Your task to perform on an android device: Check the news Image 0: 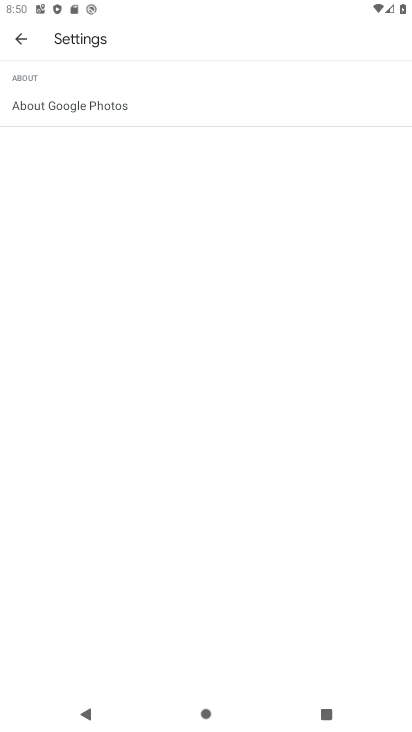
Step 0: press home button
Your task to perform on an android device: Check the news Image 1: 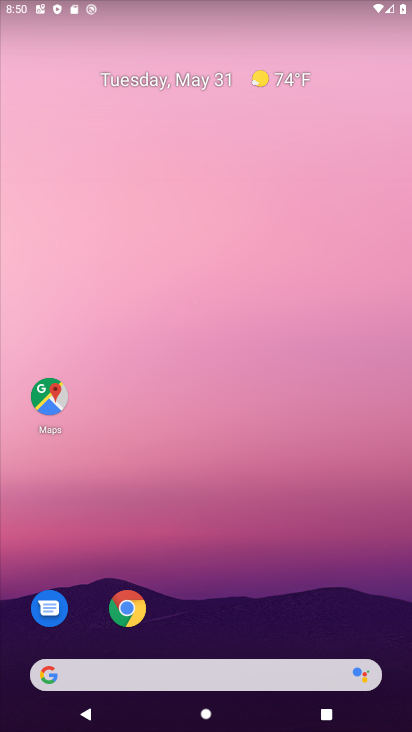
Step 1: click (274, 697)
Your task to perform on an android device: Check the news Image 2: 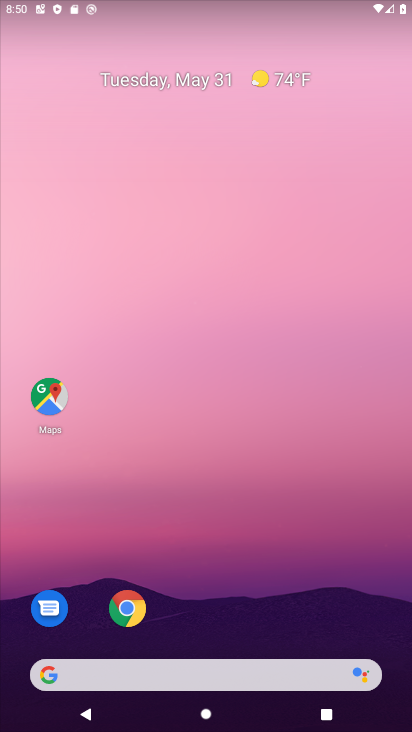
Step 2: click (275, 689)
Your task to perform on an android device: Check the news Image 3: 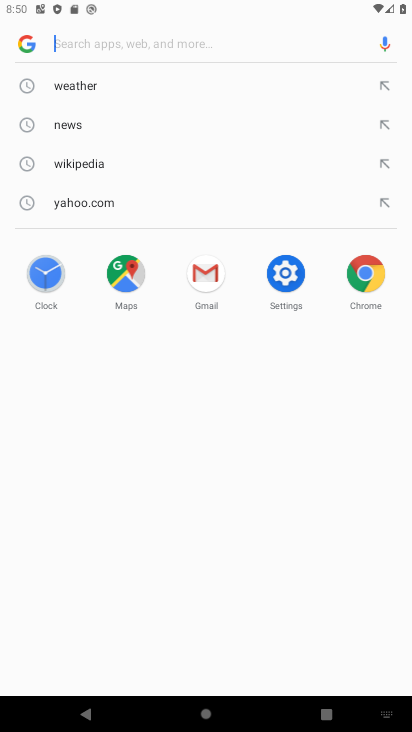
Step 3: click (74, 127)
Your task to perform on an android device: Check the news Image 4: 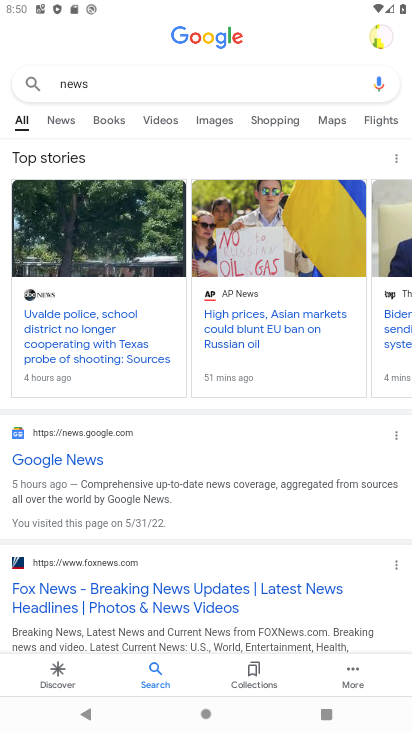
Step 4: click (74, 127)
Your task to perform on an android device: Check the news Image 5: 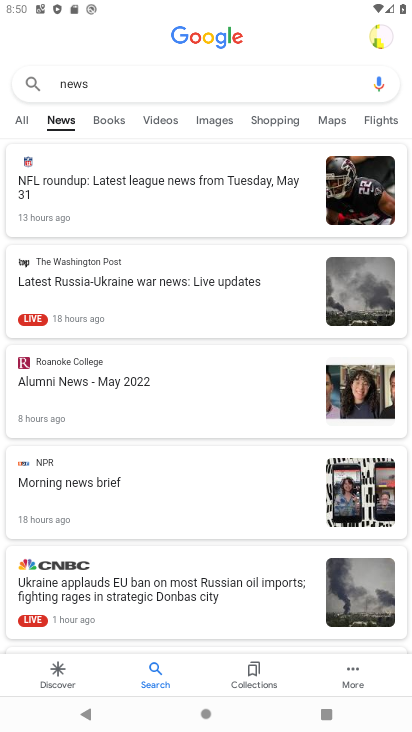
Step 5: task complete